Your task to perform on an android device: Go to accessibility settings Image 0: 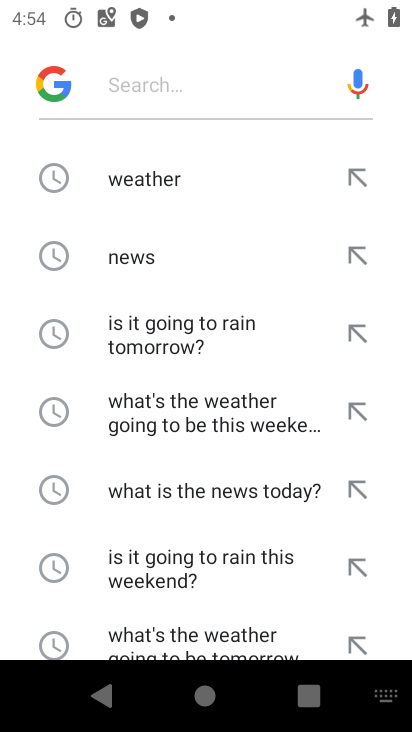
Step 0: press home button
Your task to perform on an android device: Go to accessibility settings Image 1: 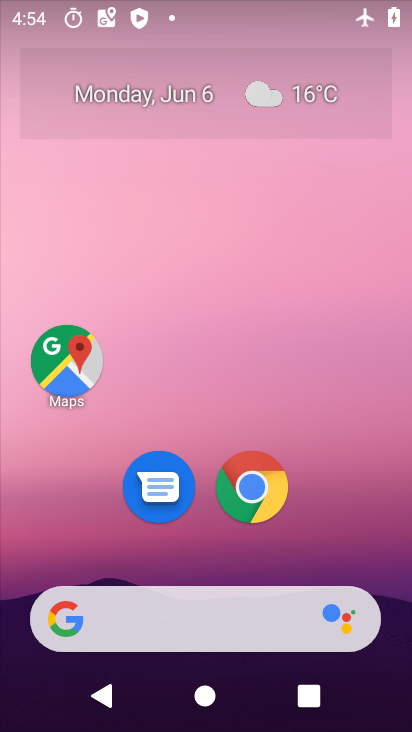
Step 1: drag from (328, 442) to (294, 180)
Your task to perform on an android device: Go to accessibility settings Image 2: 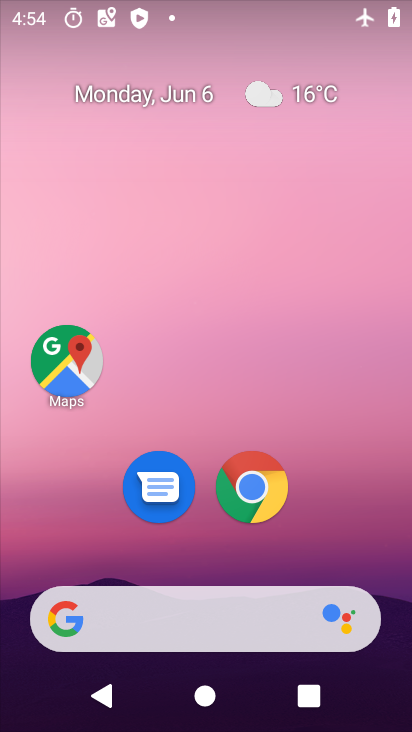
Step 2: drag from (333, 493) to (278, 100)
Your task to perform on an android device: Go to accessibility settings Image 3: 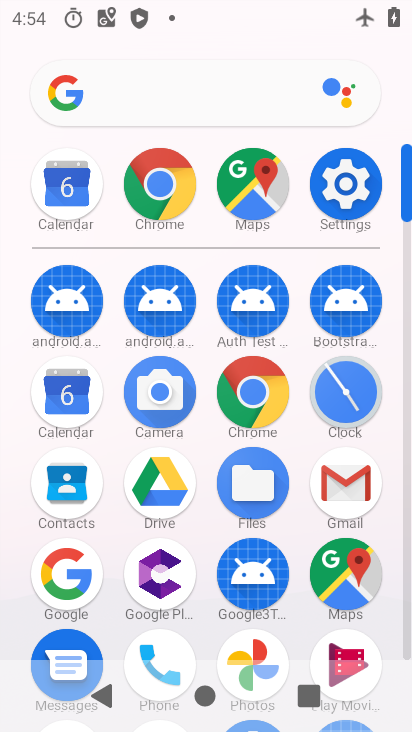
Step 3: click (338, 181)
Your task to perform on an android device: Go to accessibility settings Image 4: 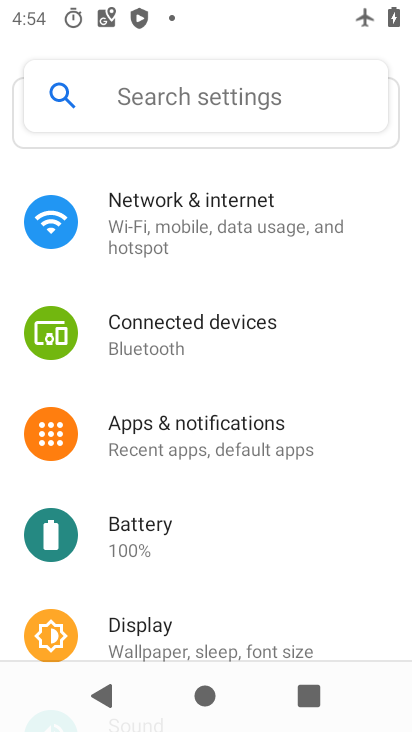
Step 4: drag from (252, 554) to (229, 101)
Your task to perform on an android device: Go to accessibility settings Image 5: 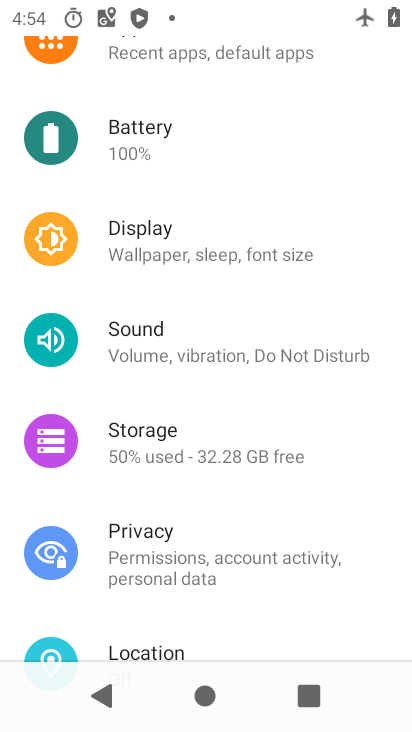
Step 5: drag from (313, 561) to (293, 85)
Your task to perform on an android device: Go to accessibility settings Image 6: 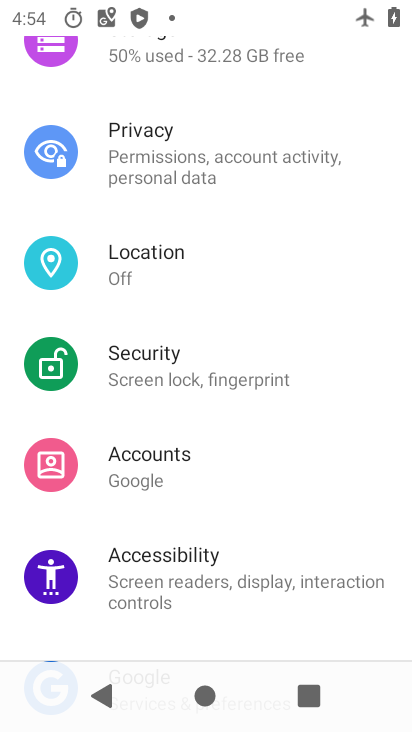
Step 6: click (188, 553)
Your task to perform on an android device: Go to accessibility settings Image 7: 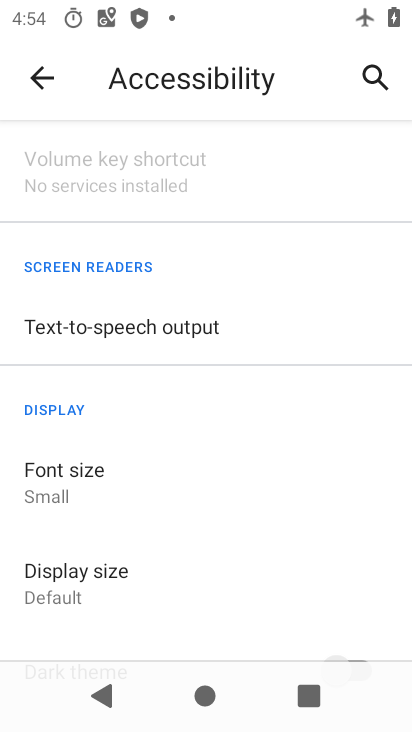
Step 7: task complete